Your task to perform on an android device: star an email in the gmail app Image 0: 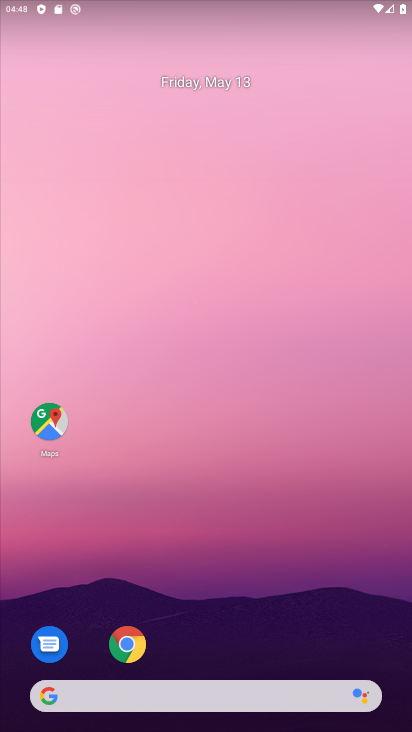
Step 0: drag from (259, 589) to (295, 0)
Your task to perform on an android device: star an email in the gmail app Image 1: 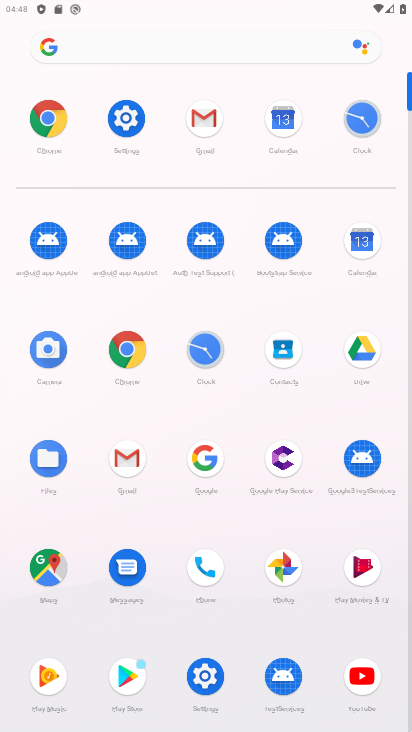
Step 1: click (200, 113)
Your task to perform on an android device: star an email in the gmail app Image 2: 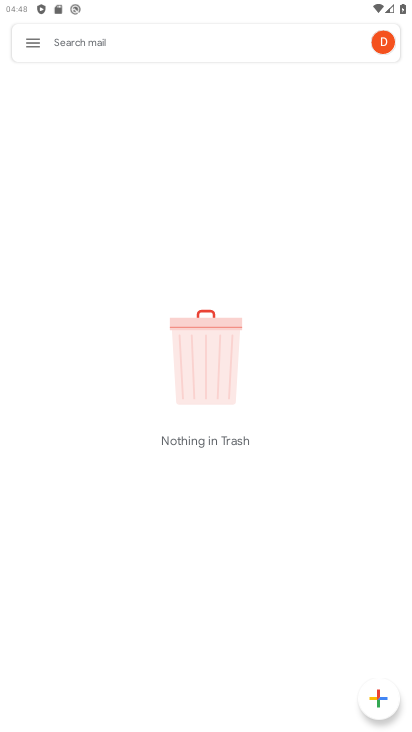
Step 2: click (25, 37)
Your task to perform on an android device: star an email in the gmail app Image 3: 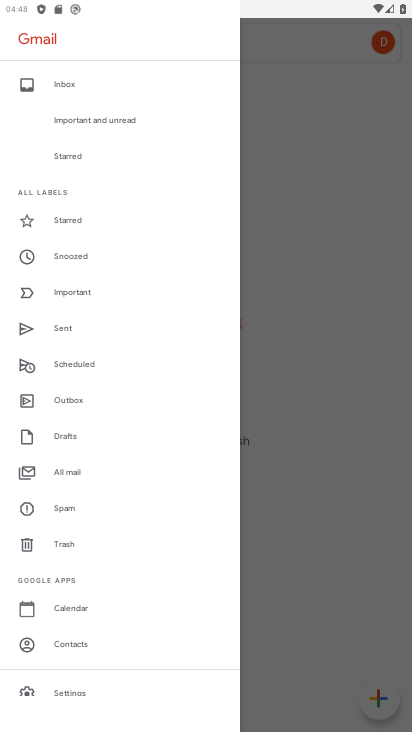
Step 3: click (74, 473)
Your task to perform on an android device: star an email in the gmail app Image 4: 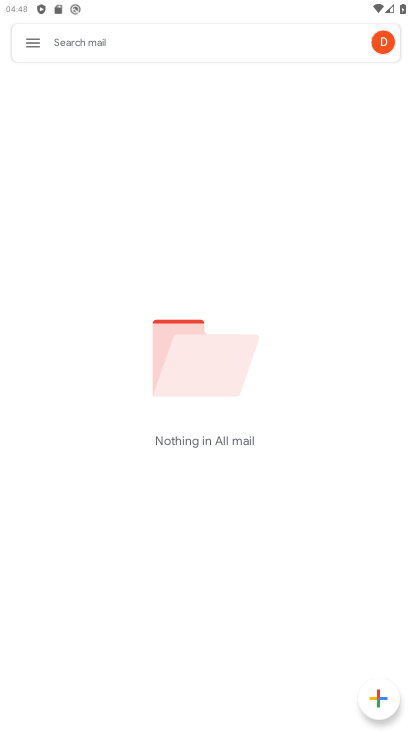
Step 4: task complete